Your task to perform on an android device: Open battery settings Image 0: 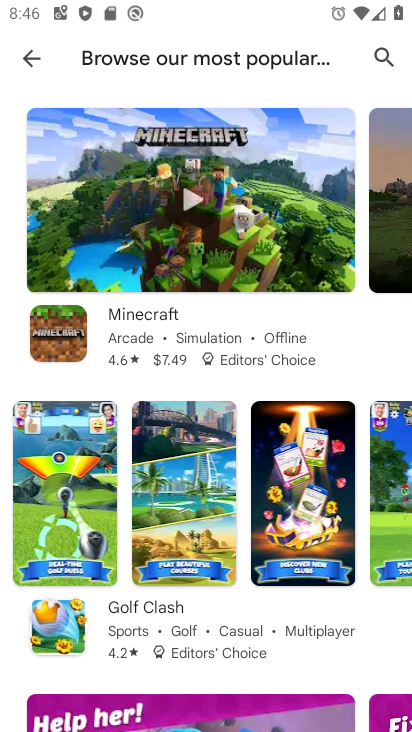
Step 0: press home button
Your task to perform on an android device: Open battery settings Image 1: 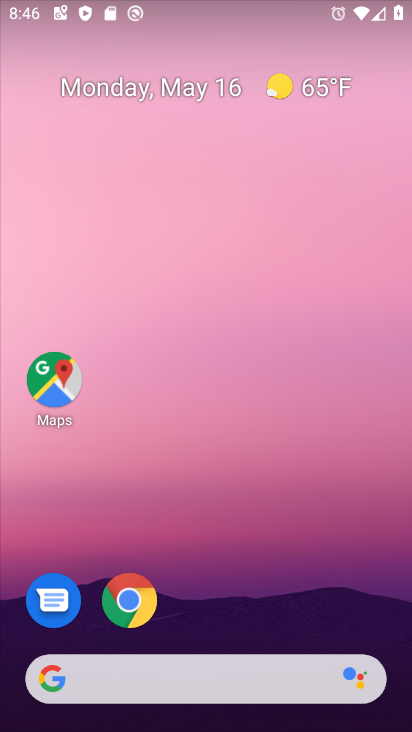
Step 1: drag from (201, 622) to (294, 20)
Your task to perform on an android device: Open battery settings Image 2: 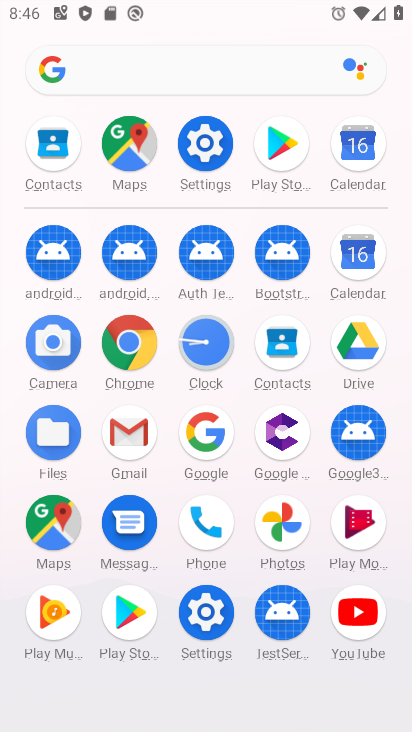
Step 2: click (212, 146)
Your task to perform on an android device: Open battery settings Image 3: 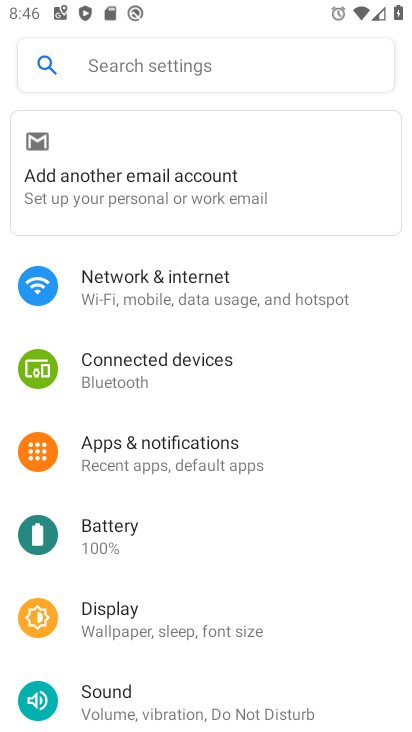
Step 3: click (112, 540)
Your task to perform on an android device: Open battery settings Image 4: 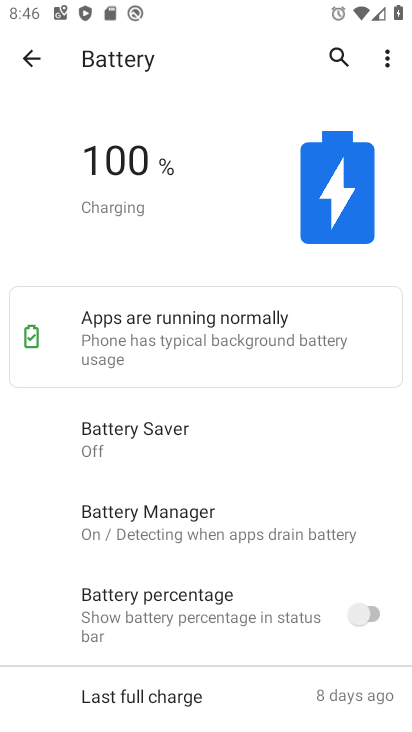
Step 4: task complete